Your task to perform on an android device: Search for lg ultragear on newegg, select the first entry, add it to the cart, then select checkout. Image 0: 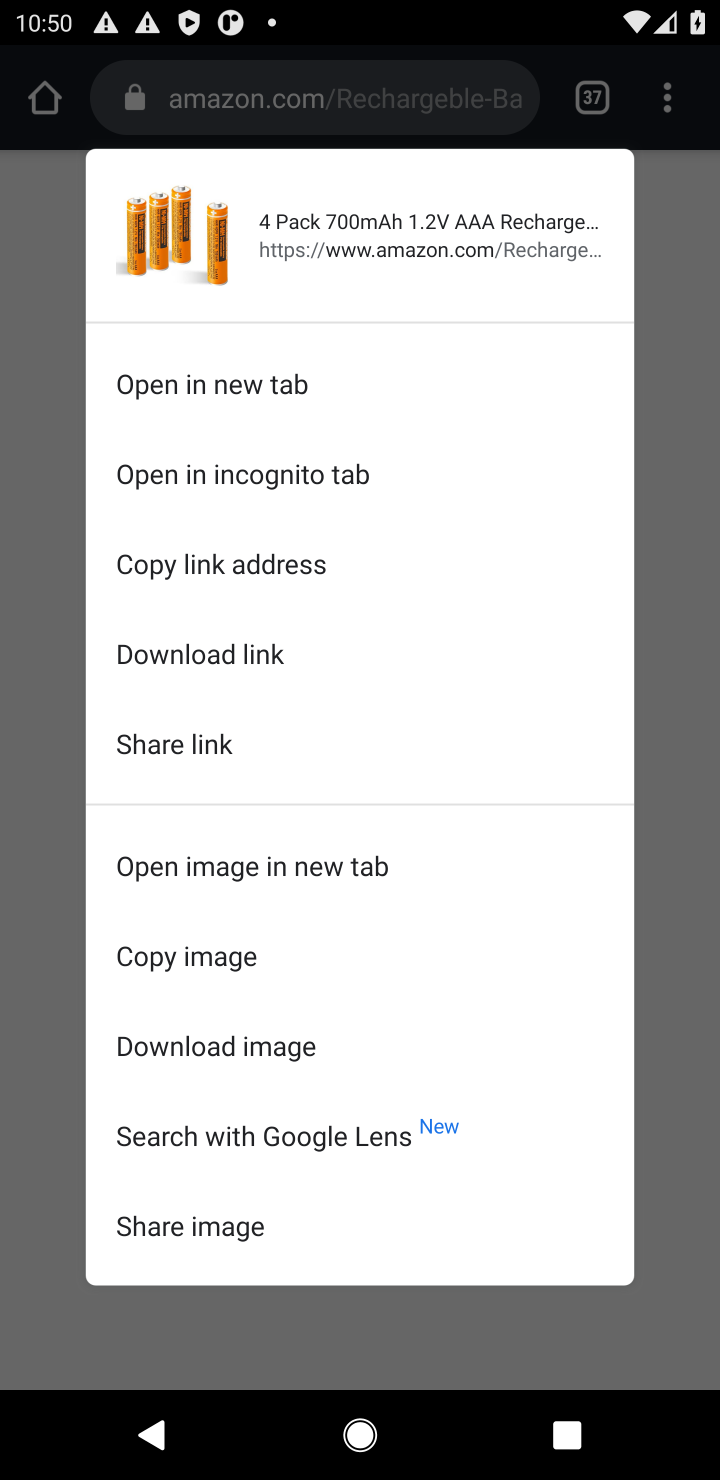
Step 0: task complete